Your task to perform on an android device: What is the recent news? Image 0: 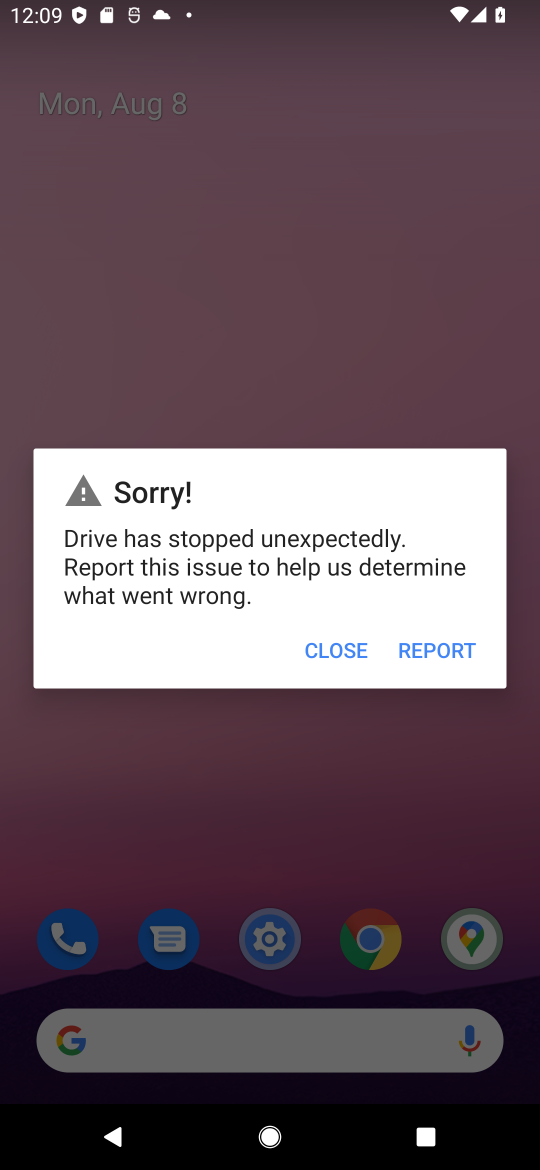
Step 0: press home button
Your task to perform on an android device: What is the recent news? Image 1: 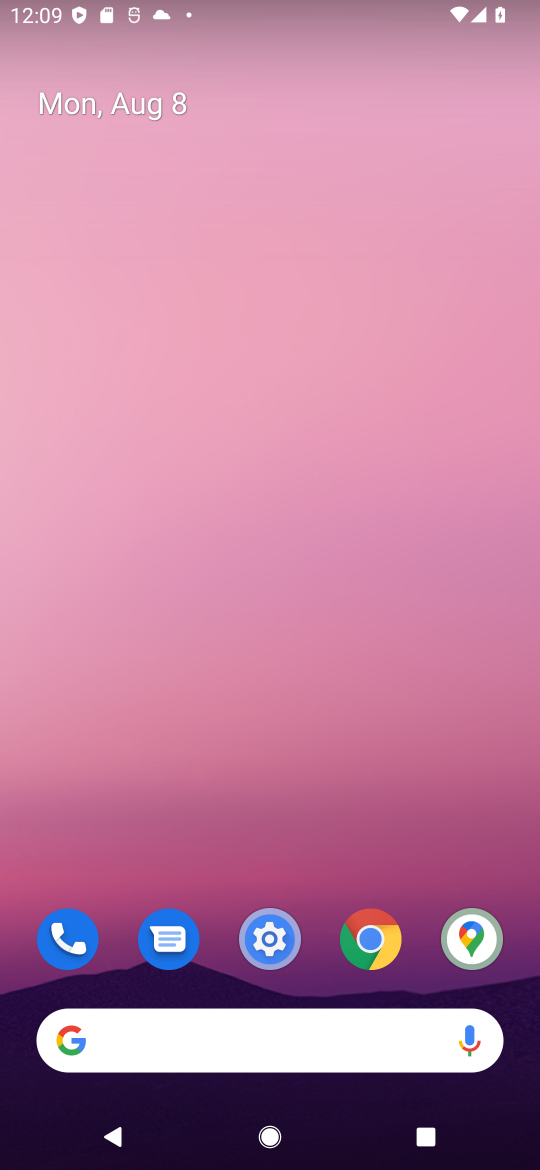
Step 1: drag from (215, 1052) to (339, 338)
Your task to perform on an android device: What is the recent news? Image 2: 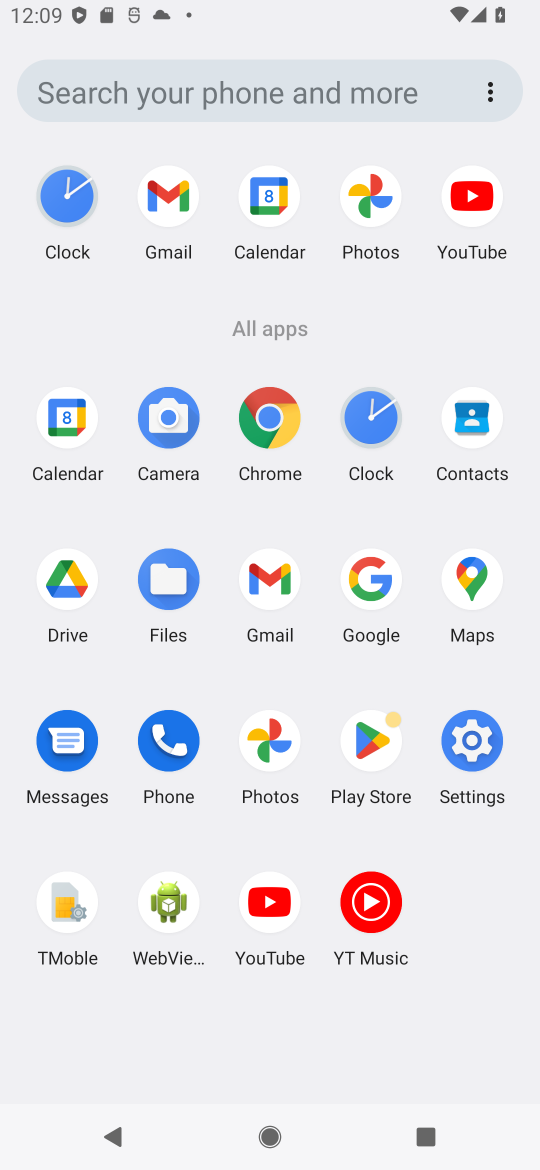
Step 2: click (368, 579)
Your task to perform on an android device: What is the recent news? Image 3: 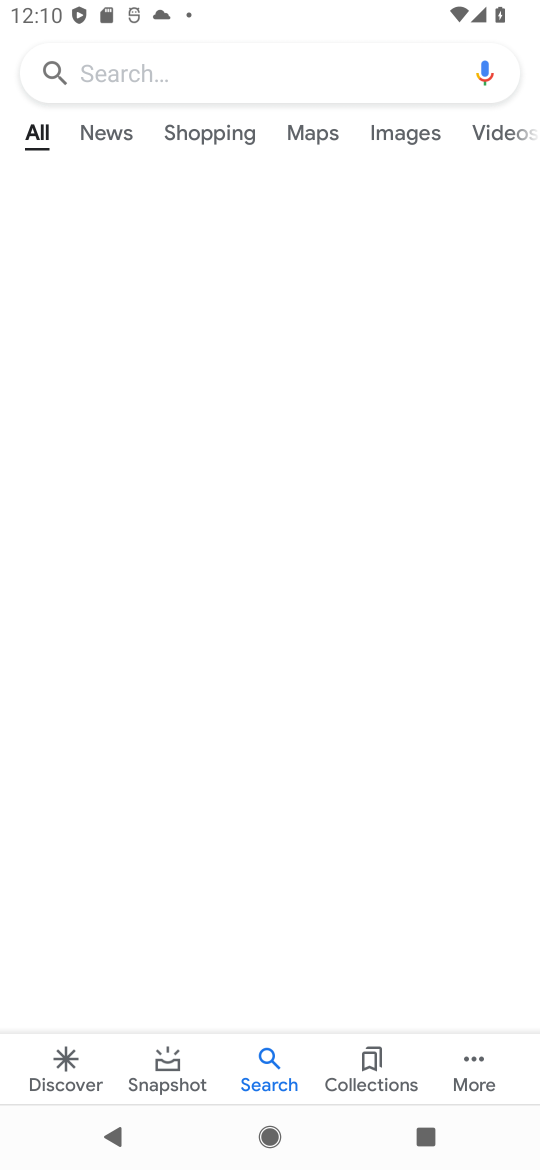
Step 3: click (227, 80)
Your task to perform on an android device: What is the recent news? Image 4: 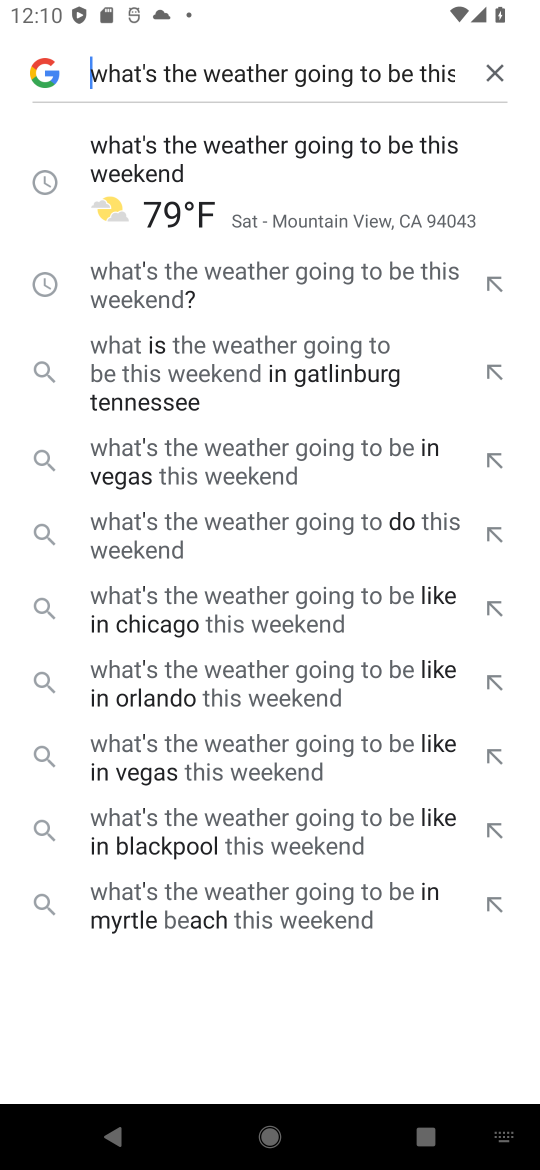
Step 4: click (498, 74)
Your task to perform on an android device: What is the recent news? Image 5: 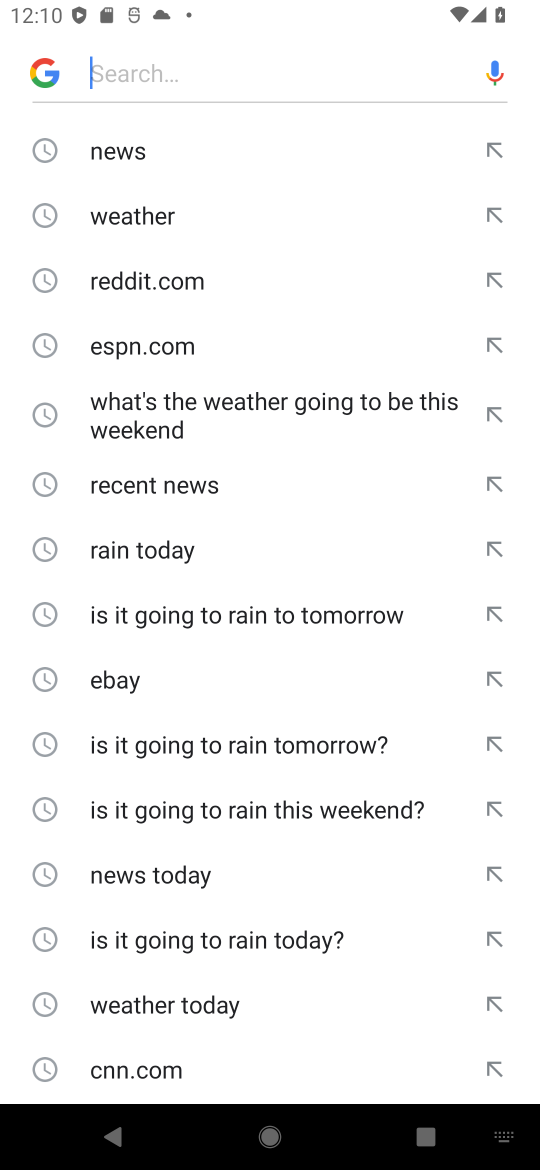
Step 5: type "recent news"
Your task to perform on an android device: What is the recent news? Image 6: 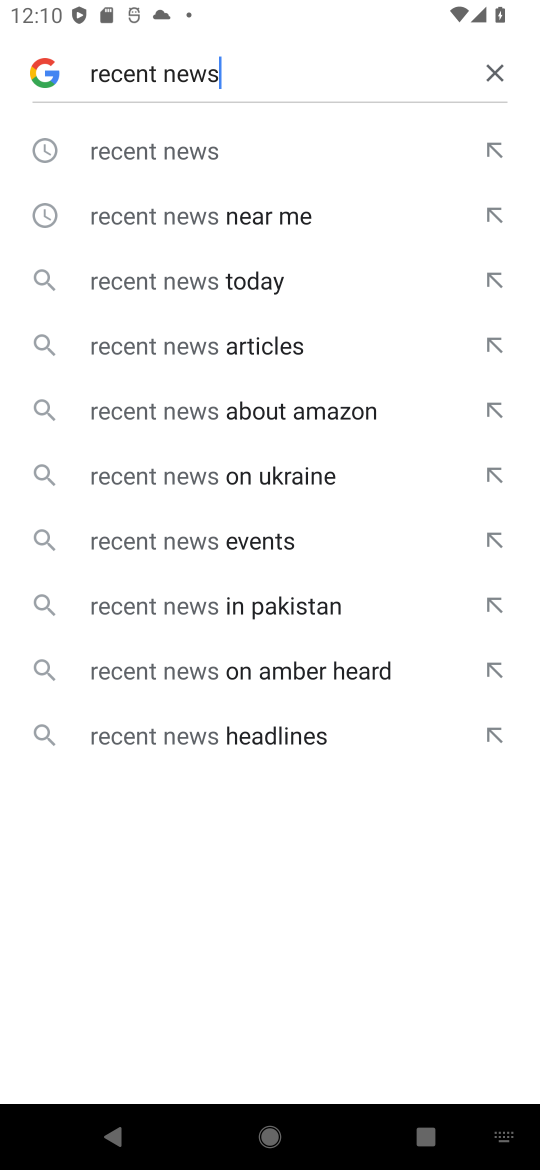
Step 6: click (208, 158)
Your task to perform on an android device: What is the recent news? Image 7: 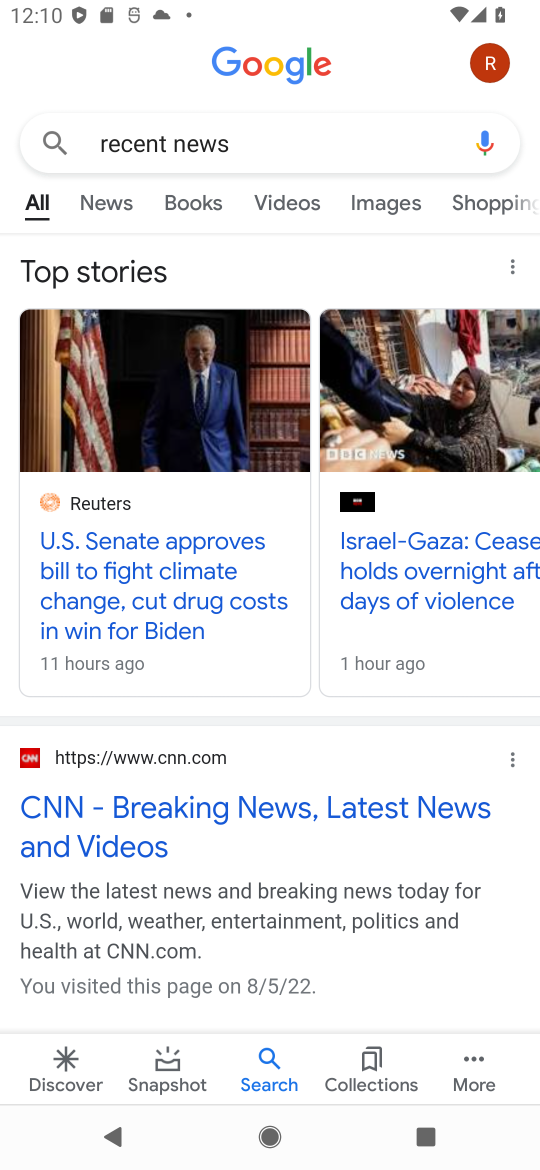
Step 7: click (388, 560)
Your task to perform on an android device: What is the recent news? Image 8: 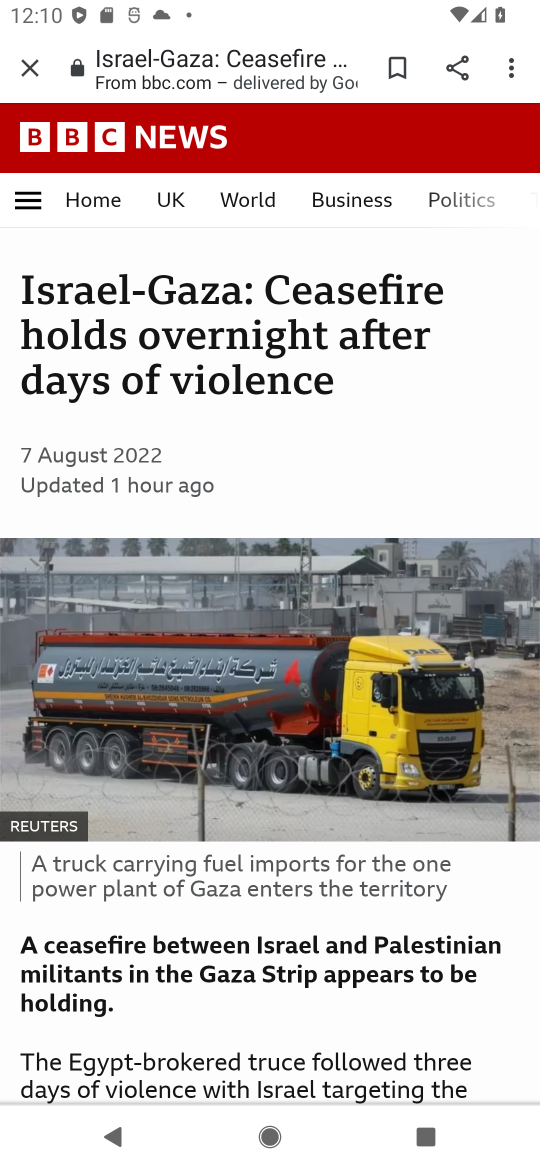
Step 8: task complete